Your task to perform on an android device: check android version Image 0: 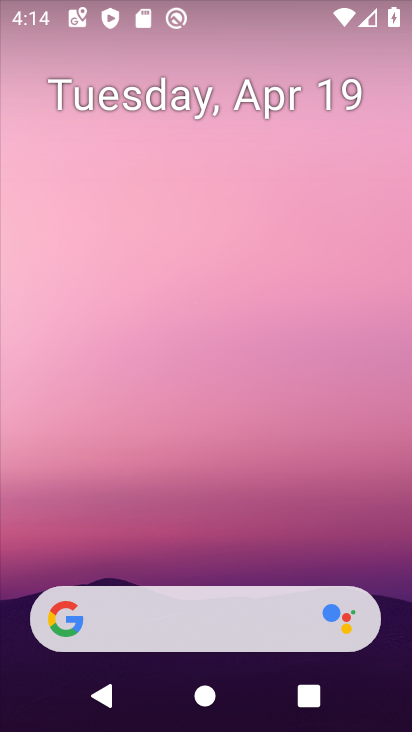
Step 0: drag from (256, 534) to (299, 133)
Your task to perform on an android device: check android version Image 1: 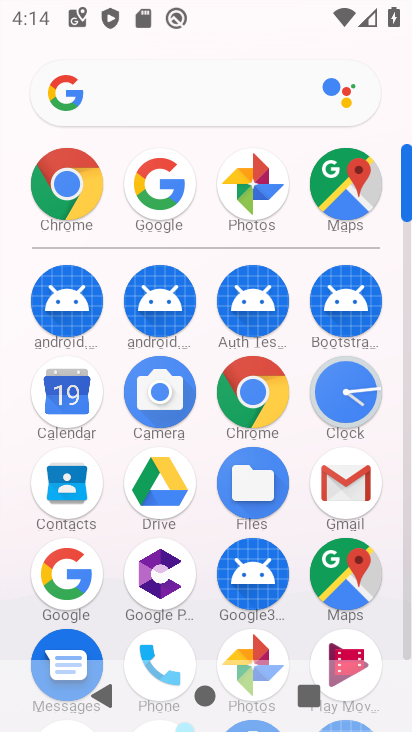
Step 1: drag from (206, 468) to (220, 306)
Your task to perform on an android device: check android version Image 2: 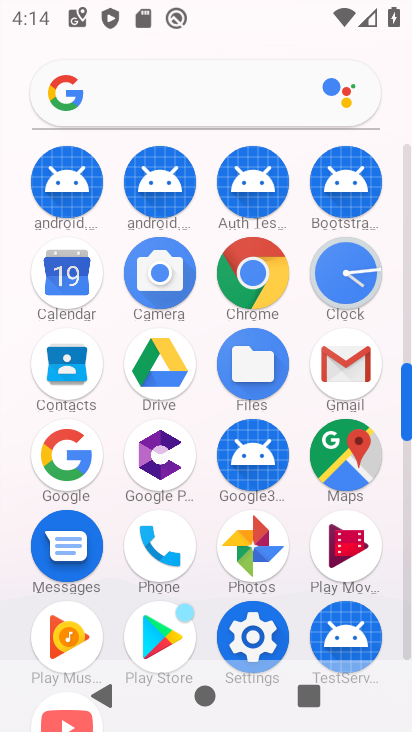
Step 2: drag from (202, 470) to (217, 319)
Your task to perform on an android device: check android version Image 3: 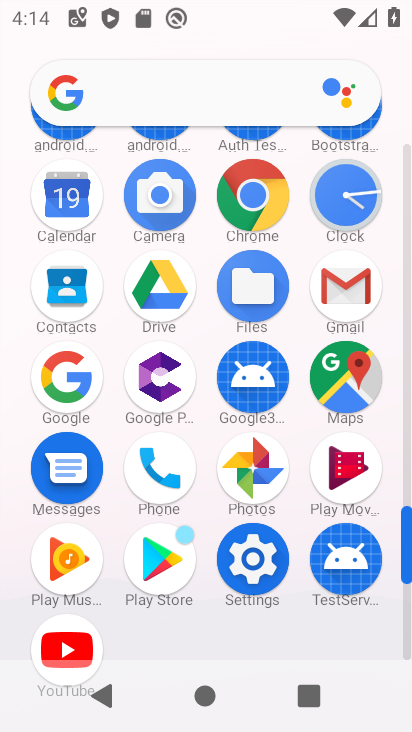
Step 3: click (253, 559)
Your task to perform on an android device: check android version Image 4: 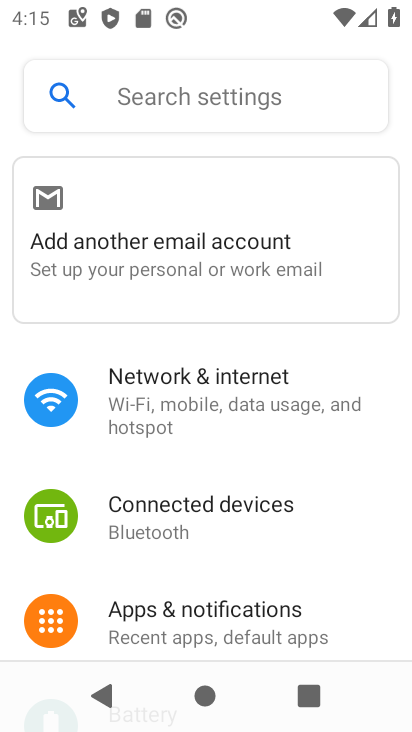
Step 4: drag from (212, 538) to (236, 439)
Your task to perform on an android device: check android version Image 5: 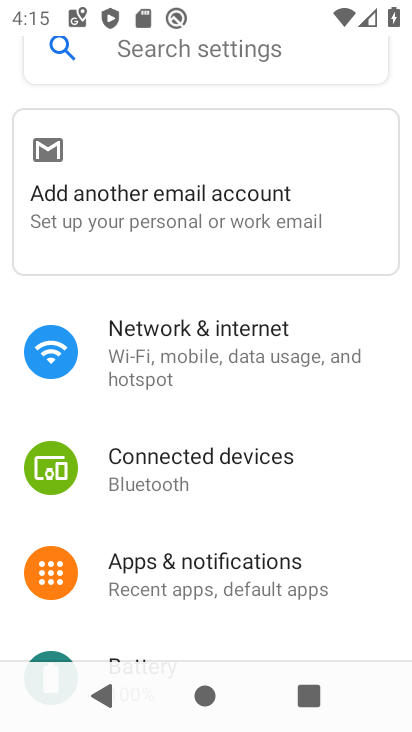
Step 5: drag from (223, 513) to (261, 412)
Your task to perform on an android device: check android version Image 6: 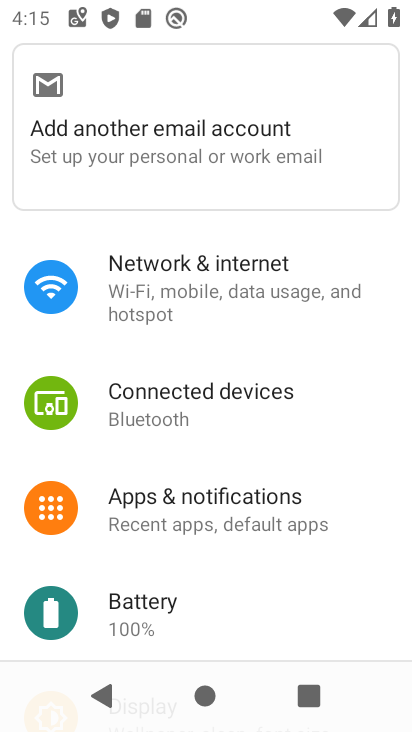
Step 6: drag from (183, 464) to (197, 366)
Your task to perform on an android device: check android version Image 7: 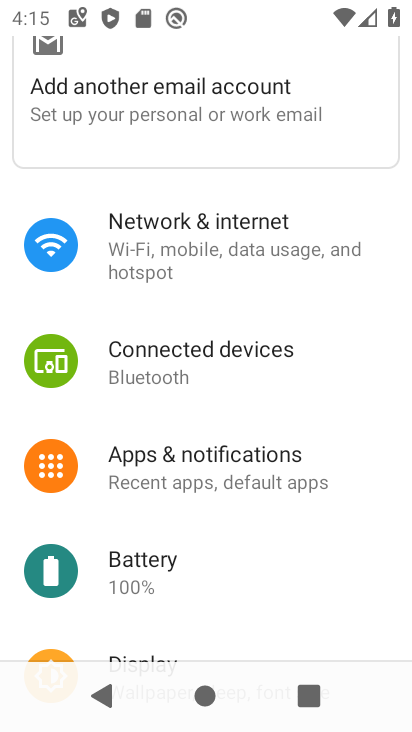
Step 7: drag from (134, 510) to (172, 427)
Your task to perform on an android device: check android version Image 8: 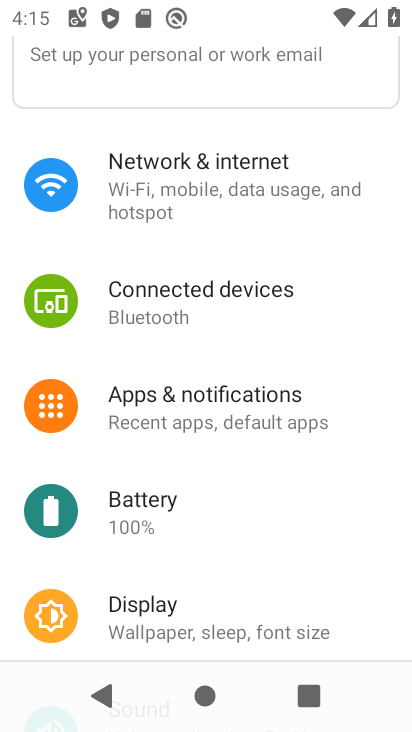
Step 8: drag from (127, 553) to (168, 450)
Your task to perform on an android device: check android version Image 9: 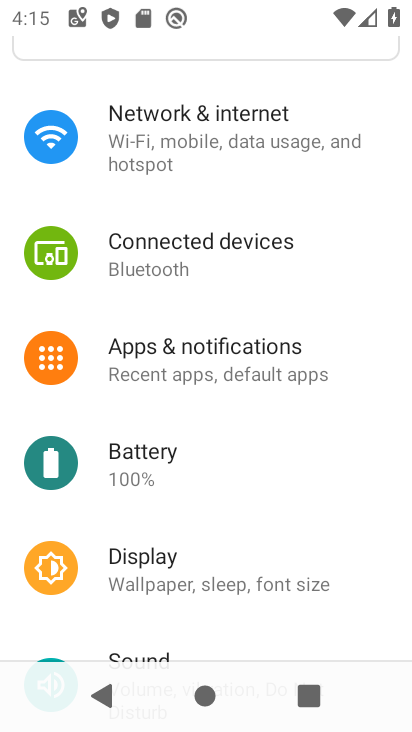
Step 9: drag from (131, 528) to (159, 410)
Your task to perform on an android device: check android version Image 10: 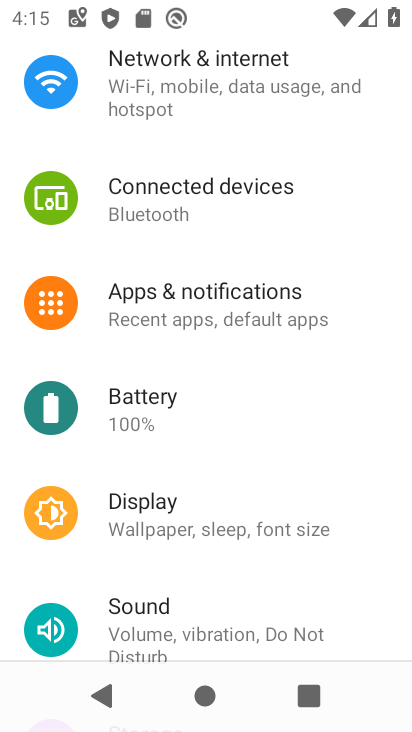
Step 10: drag from (115, 557) to (162, 440)
Your task to perform on an android device: check android version Image 11: 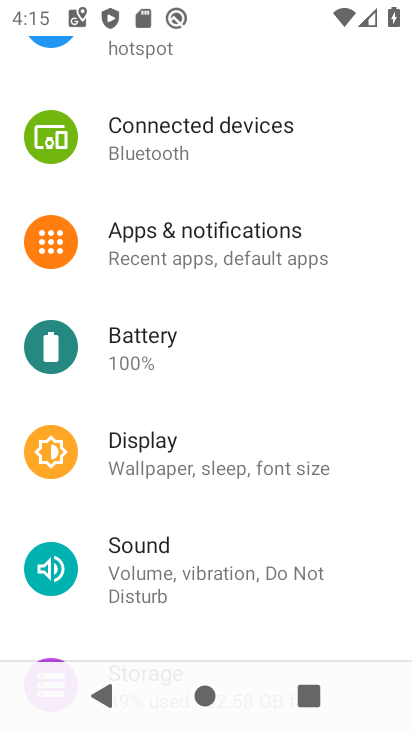
Step 11: drag from (130, 519) to (190, 421)
Your task to perform on an android device: check android version Image 12: 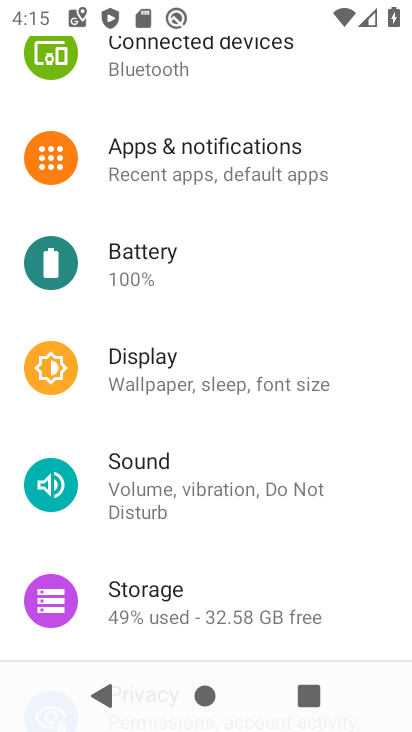
Step 12: drag from (137, 557) to (161, 443)
Your task to perform on an android device: check android version Image 13: 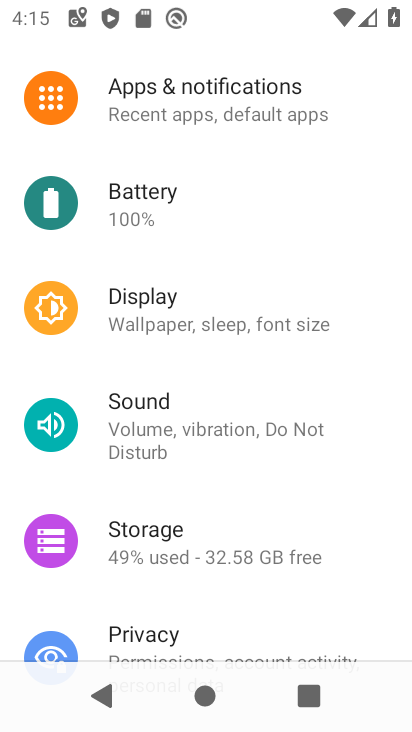
Step 13: drag from (114, 594) to (180, 461)
Your task to perform on an android device: check android version Image 14: 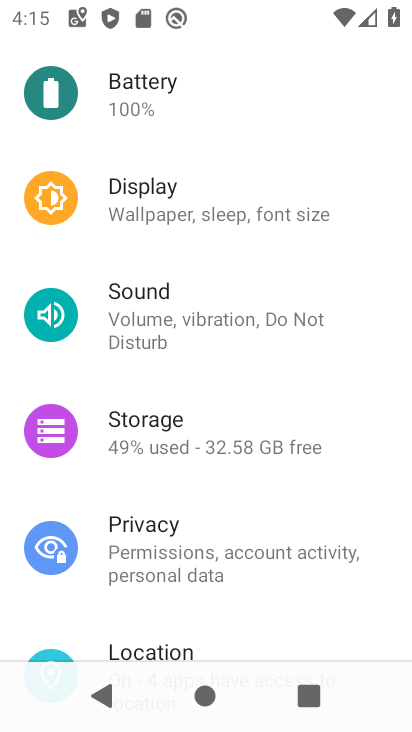
Step 14: drag from (127, 497) to (155, 386)
Your task to perform on an android device: check android version Image 15: 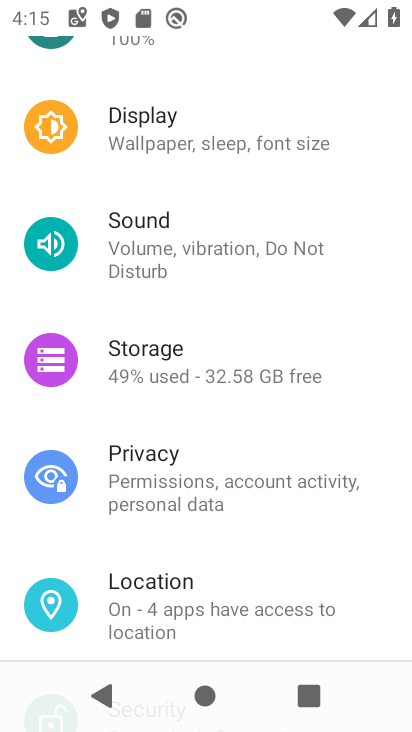
Step 15: drag from (114, 535) to (137, 439)
Your task to perform on an android device: check android version Image 16: 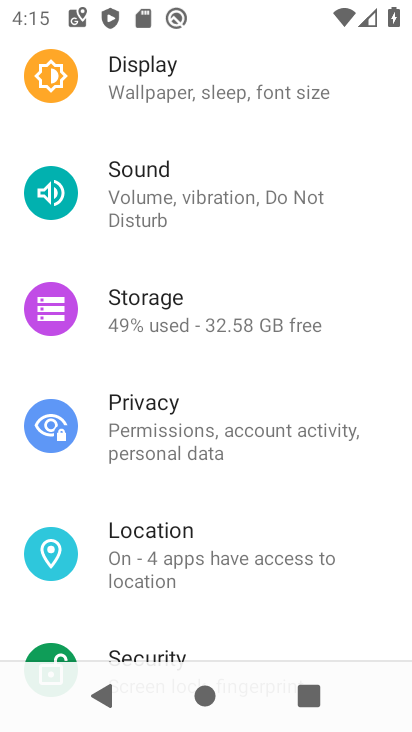
Step 16: drag from (120, 605) to (174, 481)
Your task to perform on an android device: check android version Image 17: 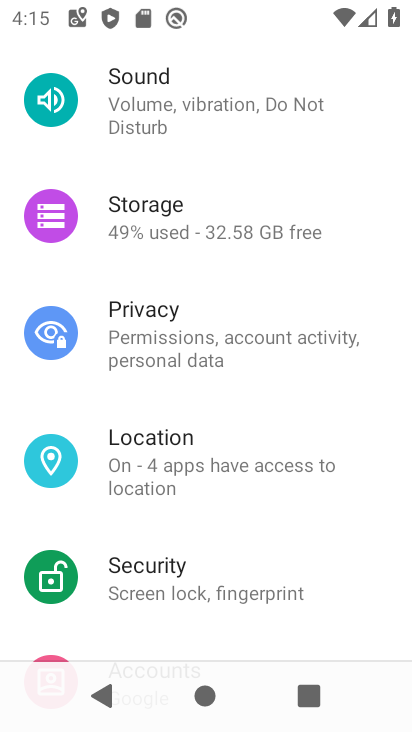
Step 17: drag from (134, 565) to (219, 439)
Your task to perform on an android device: check android version Image 18: 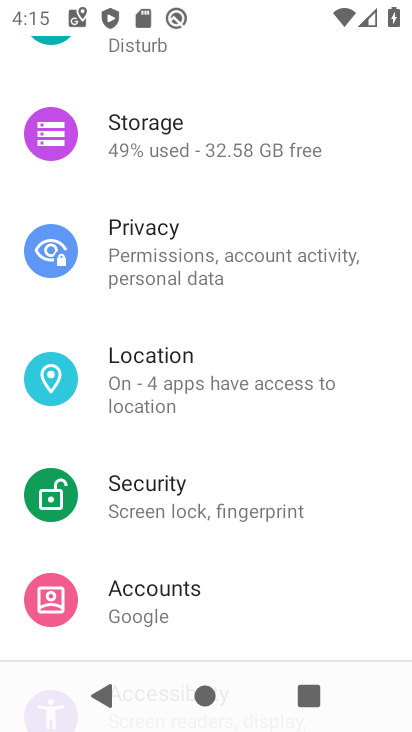
Step 18: drag from (135, 548) to (185, 440)
Your task to perform on an android device: check android version Image 19: 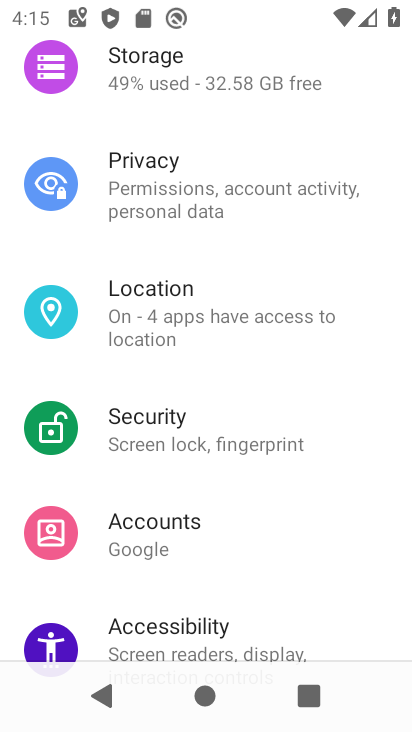
Step 19: drag from (126, 564) to (177, 478)
Your task to perform on an android device: check android version Image 20: 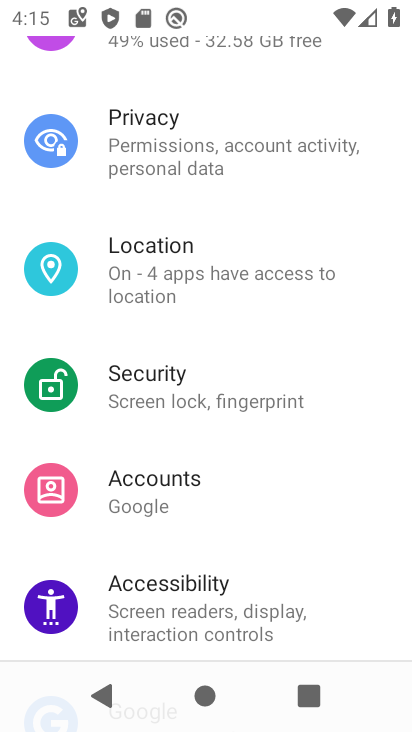
Step 20: drag from (124, 551) to (160, 439)
Your task to perform on an android device: check android version Image 21: 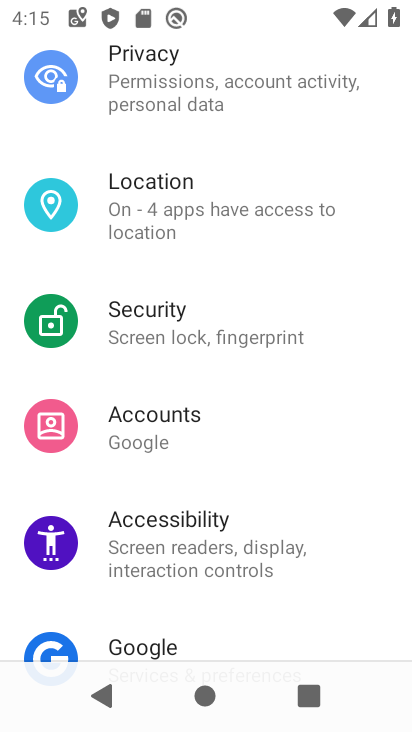
Step 21: drag from (130, 616) to (179, 471)
Your task to perform on an android device: check android version Image 22: 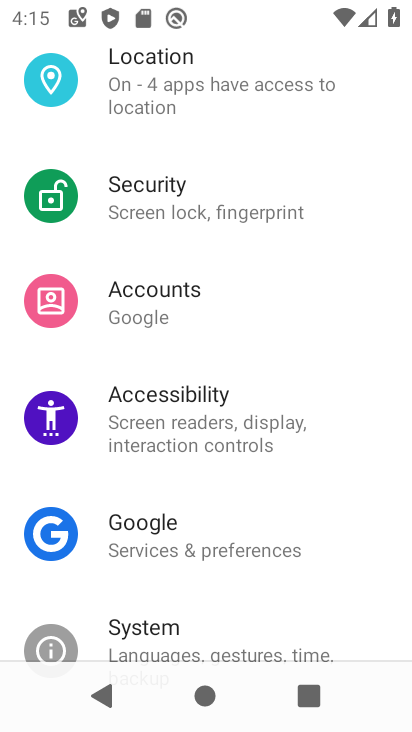
Step 22: drag from (147, 612) to (191, 488)
Your task to perform on an android device: check android version Image 23: 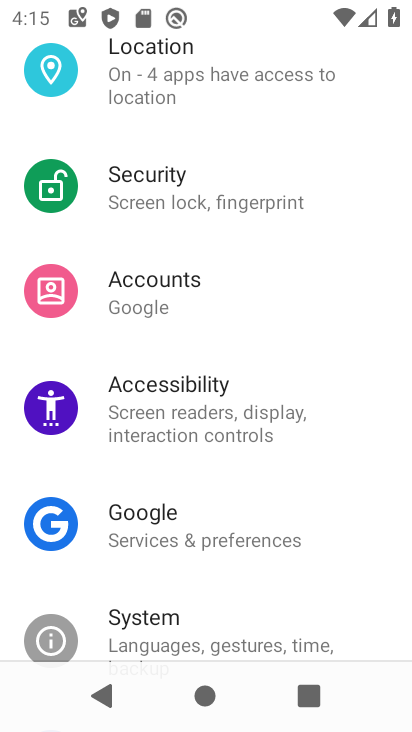
Step 23: drag from (164, 585) to (212, 463)
Your task to perform on an android device: check android version Image 24: 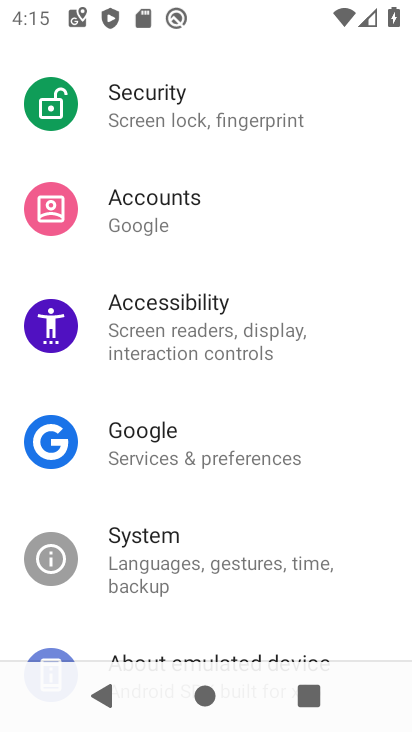
Step 24: drag from (134, 612) to (217, 448)
Your task to perform on an android device: check android version Image 25: 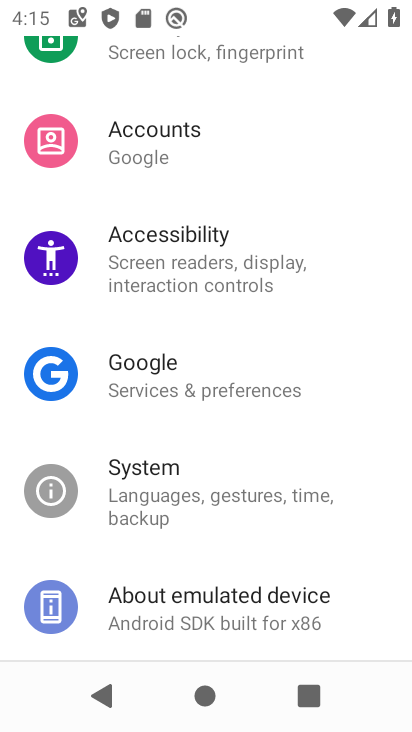
Step 25: click (145, 601)
Your task to perform on an android device: check android version Image 26: 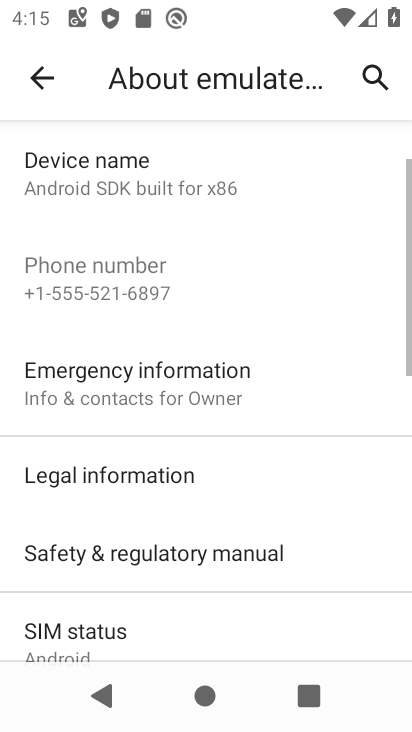
Step 26: drag from (161, 524) to (257, 377)
Your task to perform on an android device: check android version Image 27: 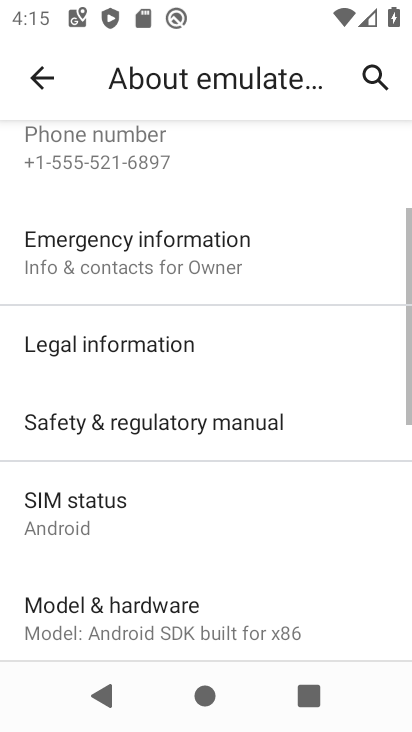
Step 27: drag from (177, 533) to (200, 399)
Your task to perform on an android device: check android version Image 28: 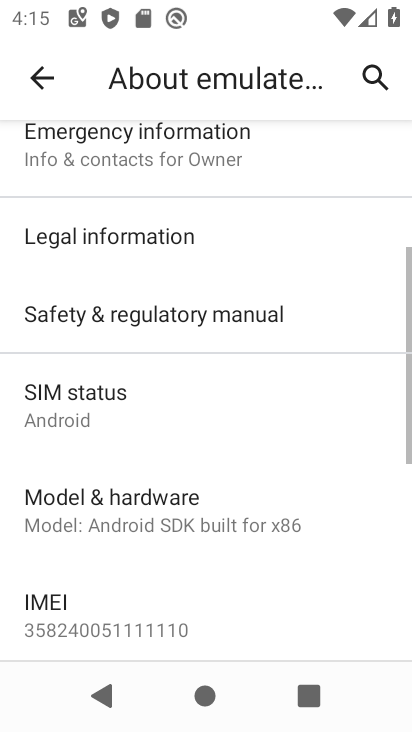
Step 28: drag from (90, 551) to (121, 395)
Your task to perform on an android device: check android version Image 29: 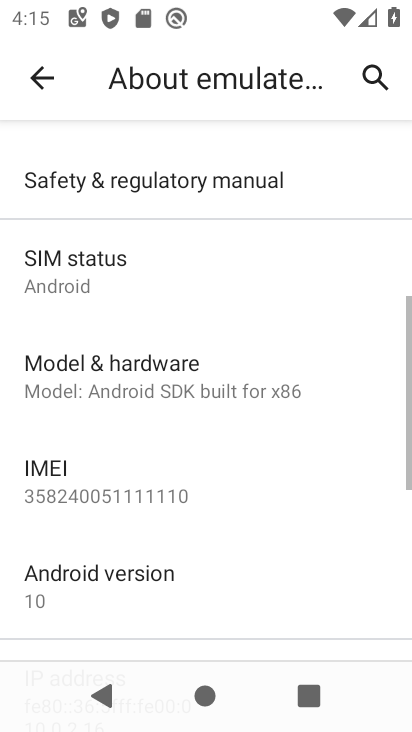
Step 29: drag from (84, 532) to (145, 436)
Your task to perform on an android device: check android version Image 30: 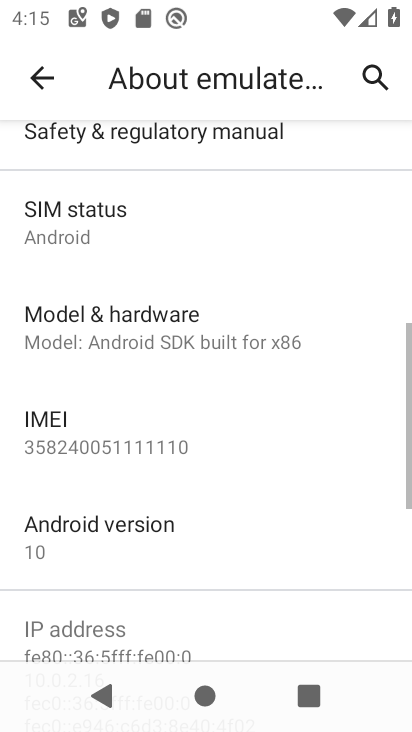
Step 30: click (102, 528)
Your task to perform on an android device: check android version Image 31: 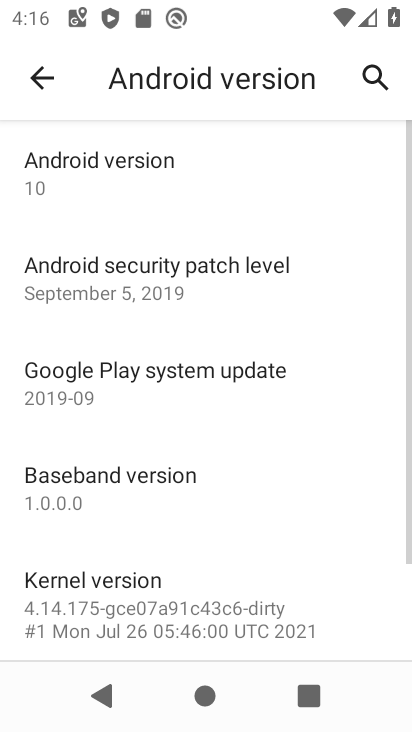
Step 31: task complete